Your task to perform on an android device: check out phone information Image 0: 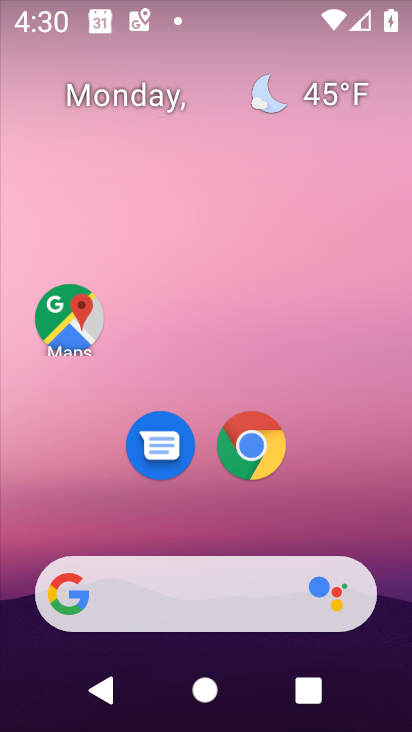
Step 0: drag from (314, 535) to (274, 51)
Your task to perform on an android device: check out phone information Image 1: 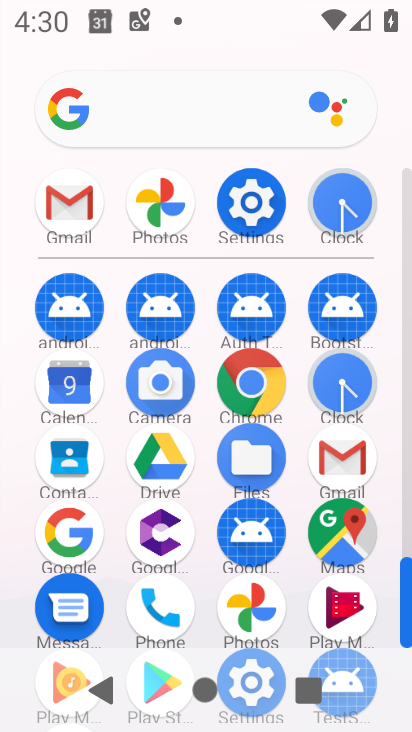
Step 1: click (239, 200)
Your task to perform on an android device: check out phone information Image 2: 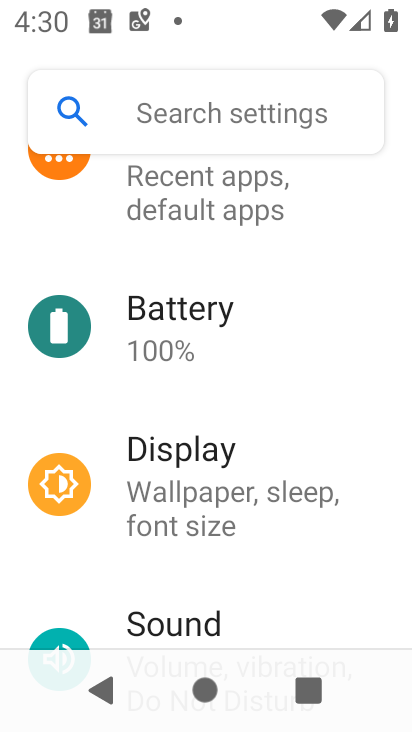
Step 2: drag from (213, 549) to (268, 20)
Your task to perform on an android device: check out phone information Image 3: 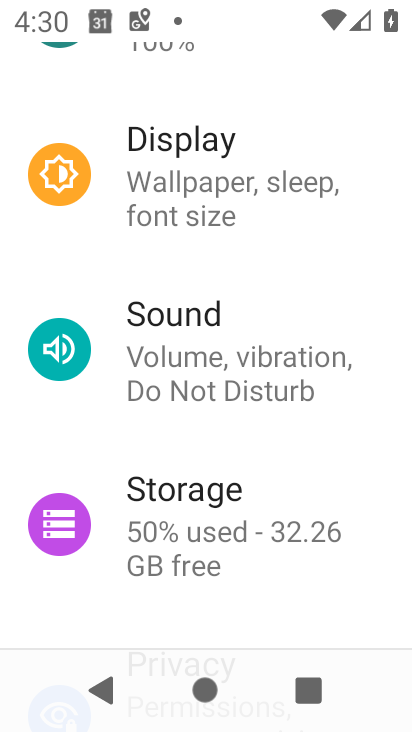
Step 3: drag from (264, 501) to (337, 9)
Your task to perform on an android device: check out phone information Image 4: 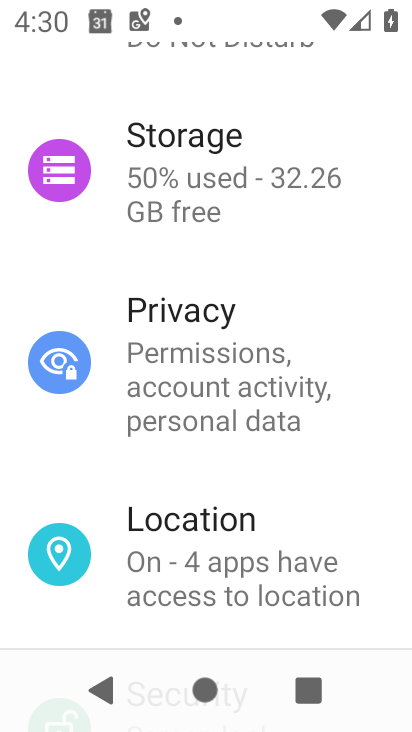
Step 4: drag from (242, 515) to (312, 5)
Your task to perform on an android device: check out phone information Image 5: 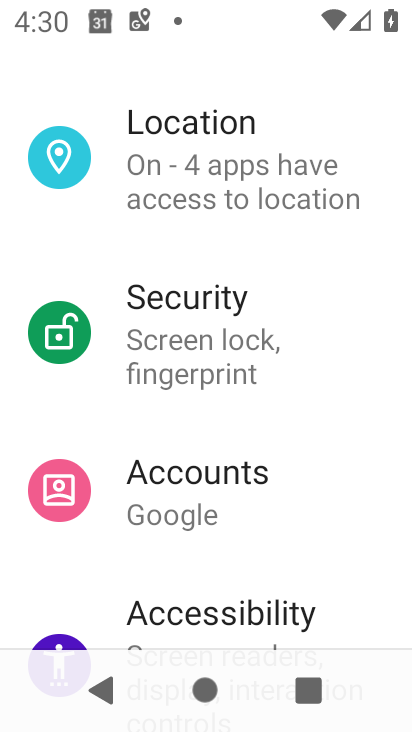
Step 5: drag from (265, 519) to (331, 43)
Your task to perform on an android device: check out phone information Image 6: 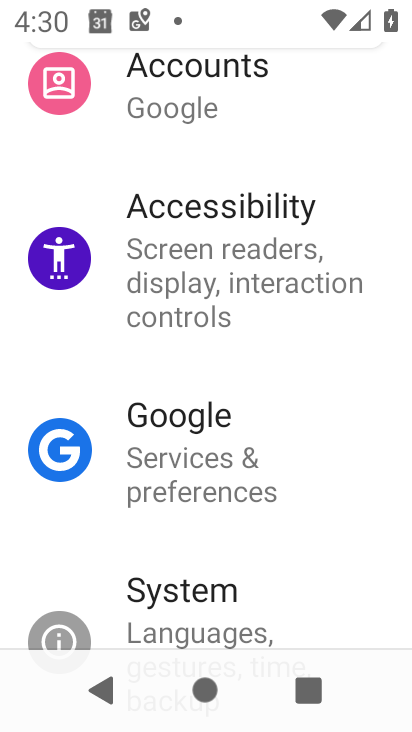
Step 6: drag from (348, 451) to (370, 38)
Your task to perform on an android device: check out phone information Image 7: 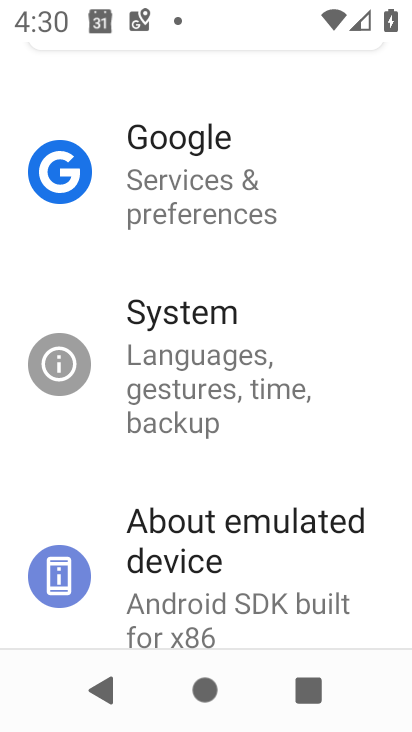
Step 7: click (215, 570)
Your task to perform on an android device: check out phone information Image 8: 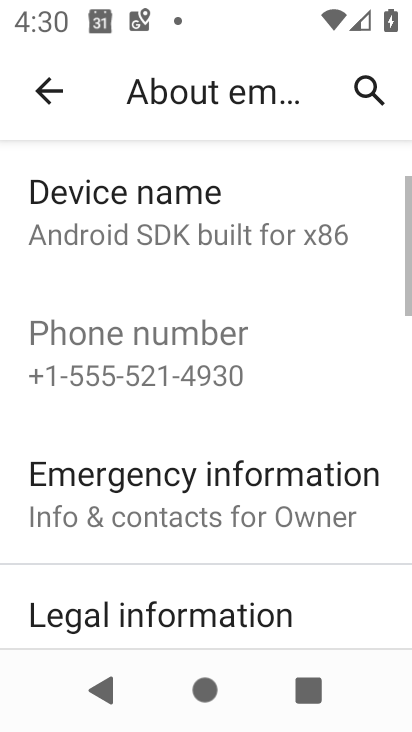
Step 8: task complete